Your task to perform on an android device: Find coffee shops on Maps Image 0: 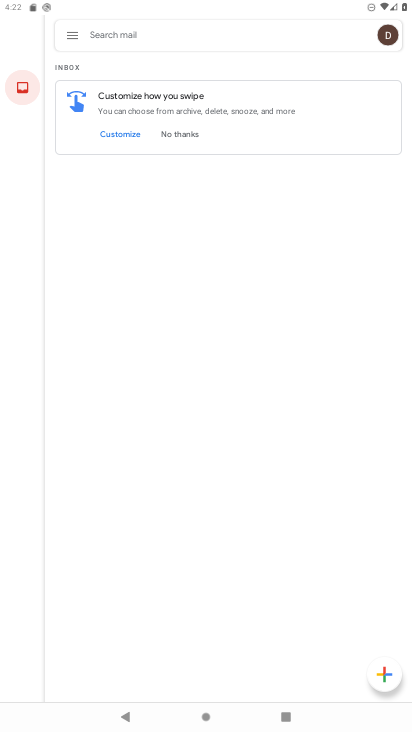
Step 0: press home button
Your task to perform on an android device: Find coffee shops on Maps Image 1: 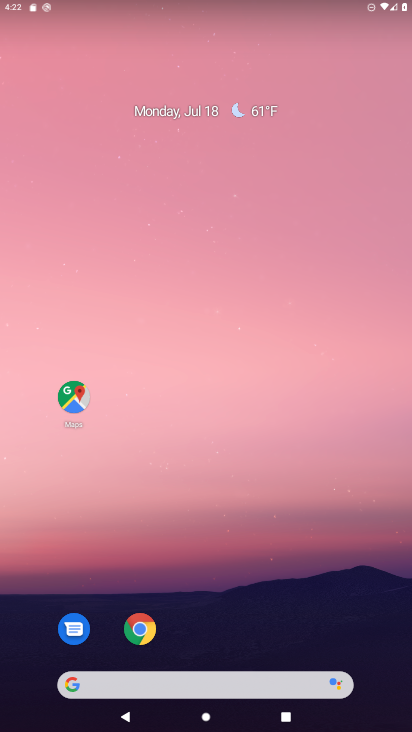
Step 1: click (78, 395)
Your task to perform on an android device: Find coffee shops on Maps Image 2: 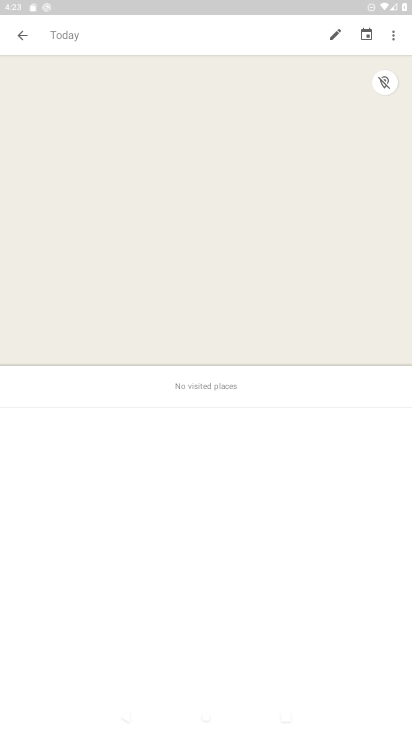
Step 2: click (20, 31)
Your task to perform on an android device: Find coffee shops on Maps Image 3: 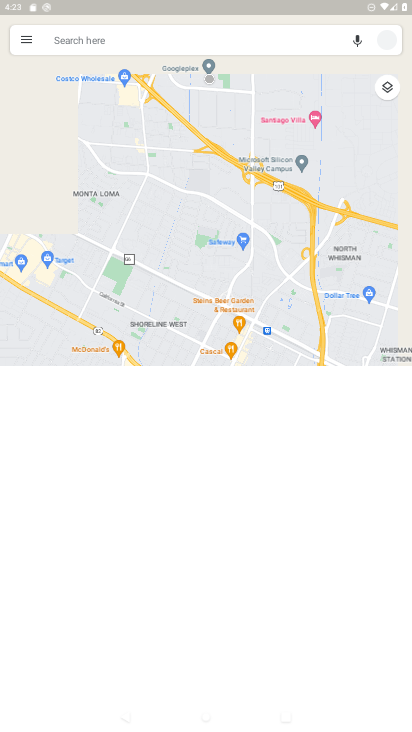
Step 3: click (77, 34)
Your task to perform on an android device: Find coffee shops on Maps Image 4: 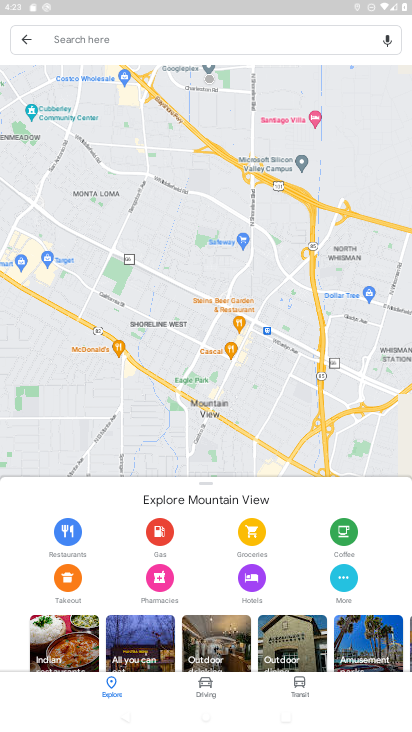
Step 4: click (90, 39)
Your task to perform on an android device: Find coffee shops on Maps Image 5: 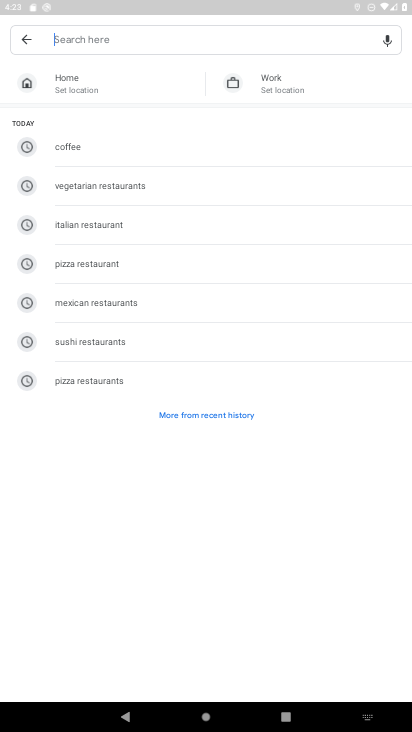
Step 5: click (67, 145)
Your task to perform on an android device: Find coffee shops on Maps Image 6: 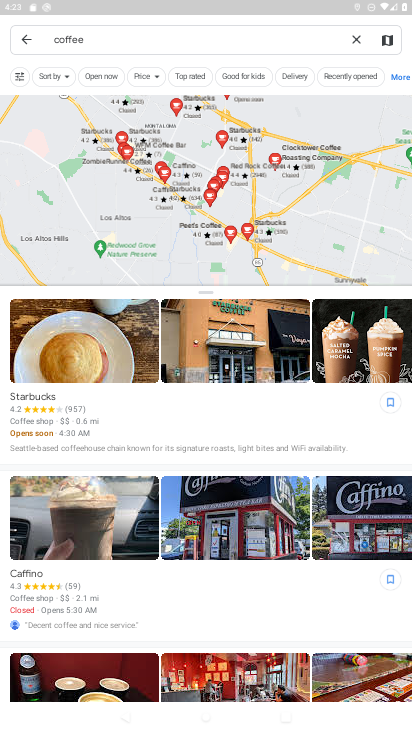
Step 6: task complete